Your task to perform on an android device: Open location settings Image 0: 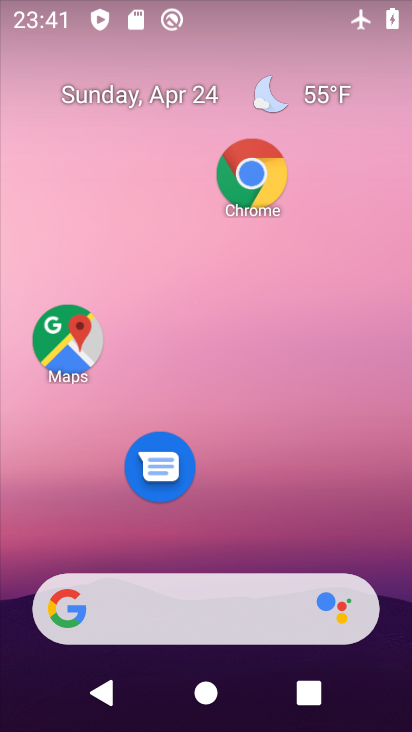
Step 0: drag from (265, 512) to (303, 60)
Your task to perform on an android device: Open location settings Image 1: 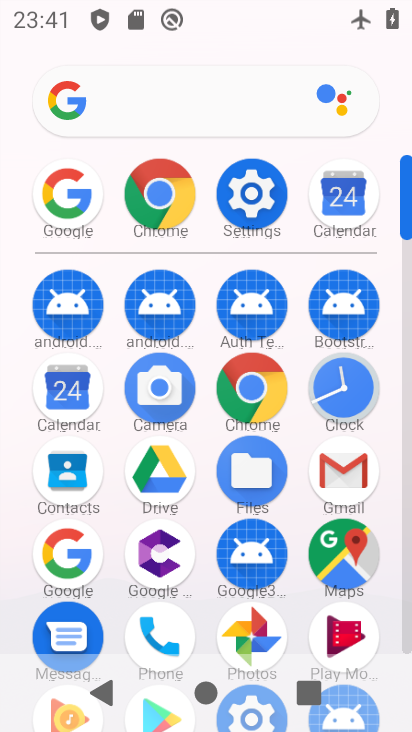
Step 1: click (251, 194)
Your task to perform on an android device: Open location settings Image 2: 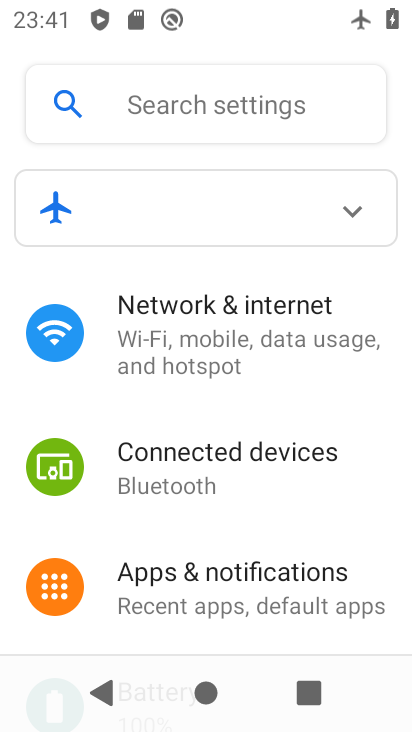
Step 2: drag from (285, 509) to (273, 124)
Your task to perform on an android device: Open location settings Image 3: 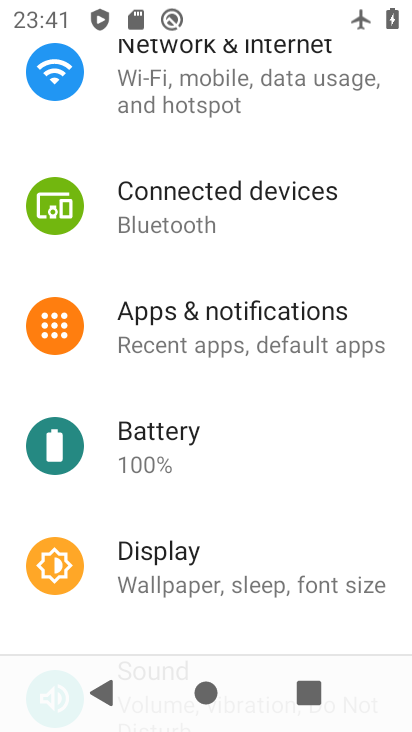
Step 3: drag from (253, 532) to (314, 144)
Your task to perform on an android device: Open location settings Image 4: 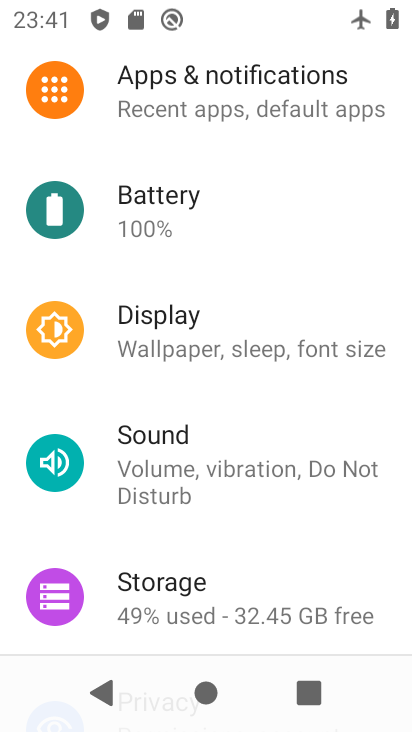
Step 4: drag from (196, 535) to (207, 241)
Your task to perform on an android device: Open location settings Image 5: 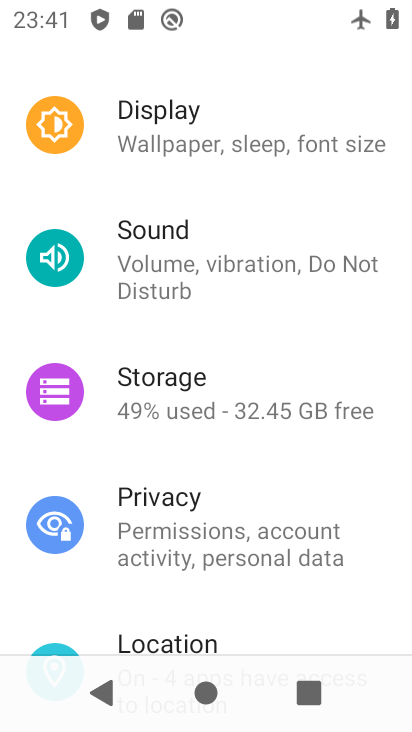
Step 5: click (170, 642)
Your task to perform on an android device: Open location settings Image 6: 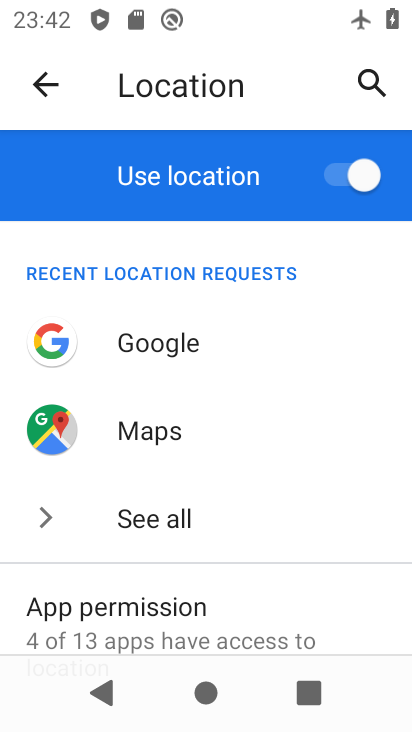
Step 6: task complete